Your task to perform on an android device: What's on my calendar today? Image 0: 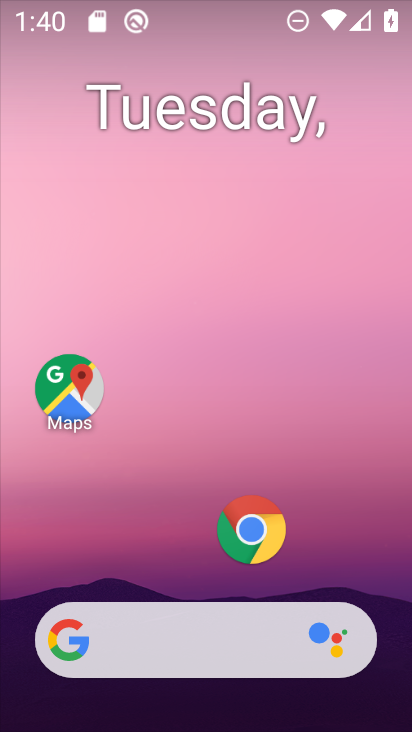
Step 0: drag from (302, 674) to (305, 199)
Your task to perform on an android device: What's on my calendar today? Image 1: 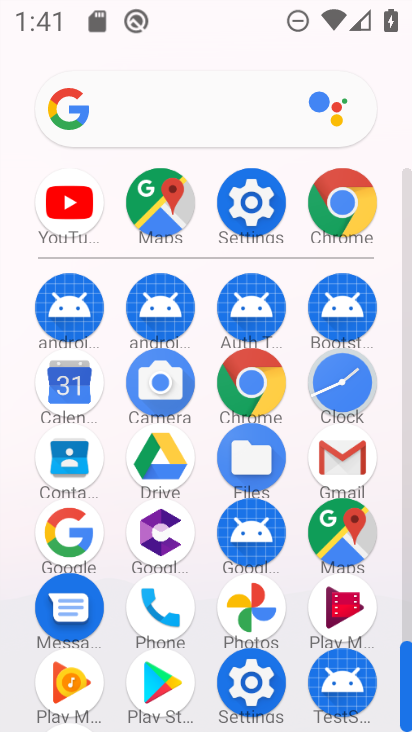
Step 1: click (63, 395)
Your task to perform on an android device: What's on my calendar today? Image 2: 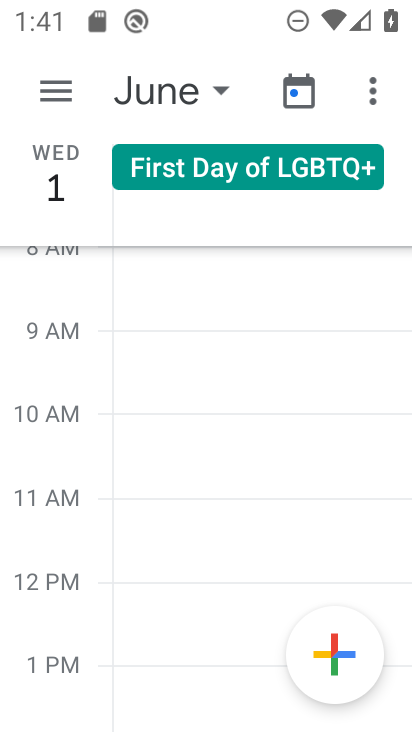
Step 2: task complete